Your task to perform on an android device: Go to ESPN.com Image 0: 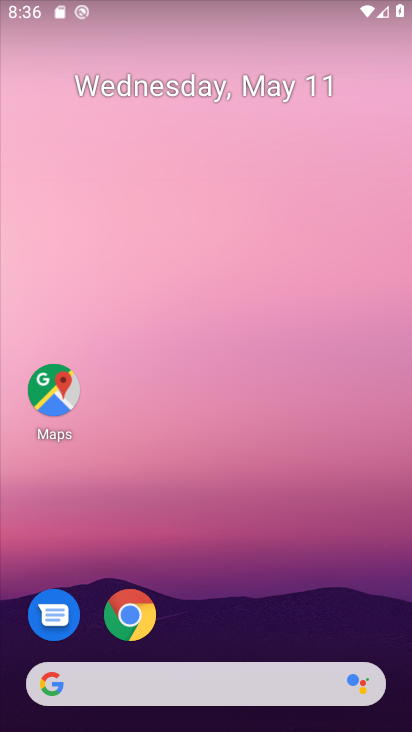
Step 0: drag from (313, 584) to (347, 6)
Your task to perform on an android device: Go to ESPN.com Image 1: 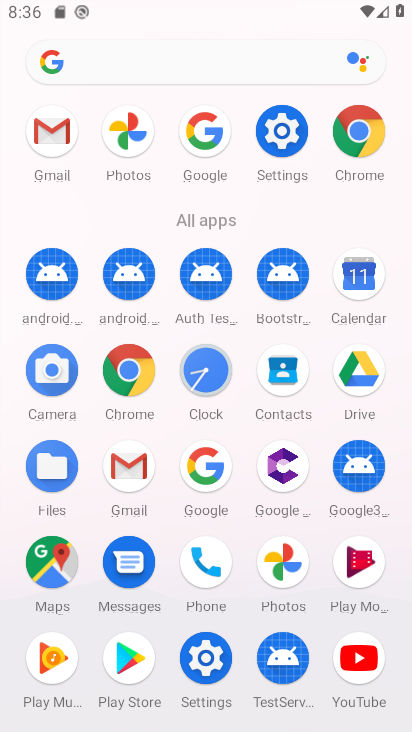
Step 1: click (352, 150)
Your task to perform on an android device: Go to ESPN.com Image 2: 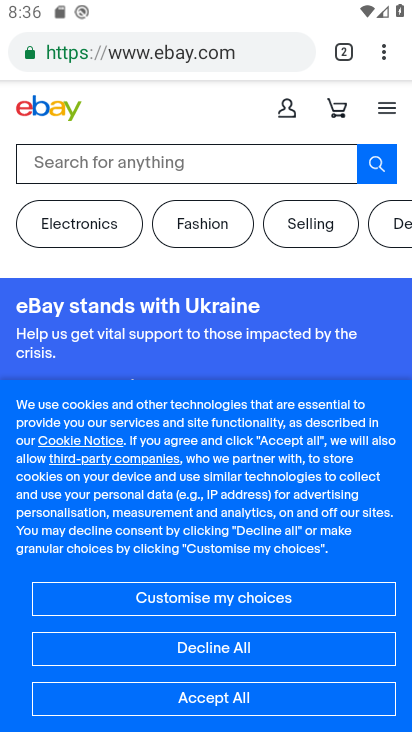
Step 2: click (229, 58)
Your task to perform on an android device: Go to ESPN.com Image 3: 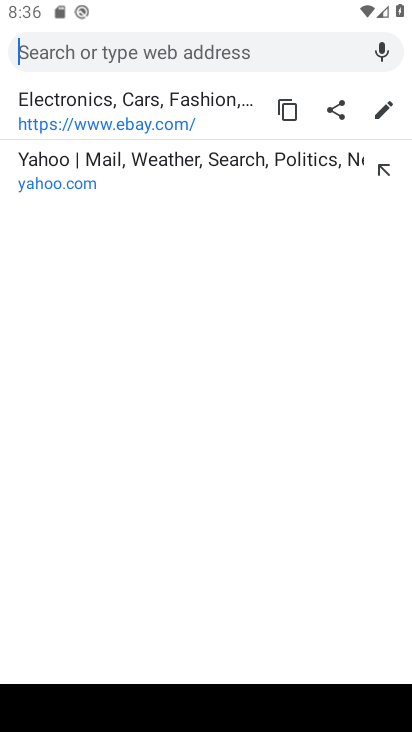
Step 3: type "espn"
Your task to perform on an android device: Go to ESPN.com Image 4: 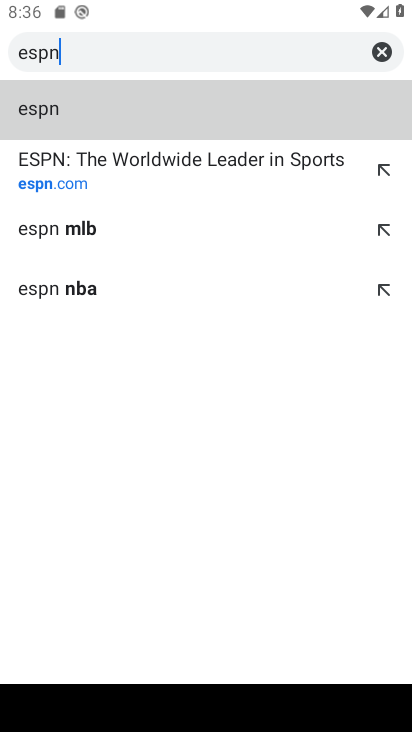
Step 4: click (108, 159)
Your task to perform on an android device: Go to ESPN.com Image 5: 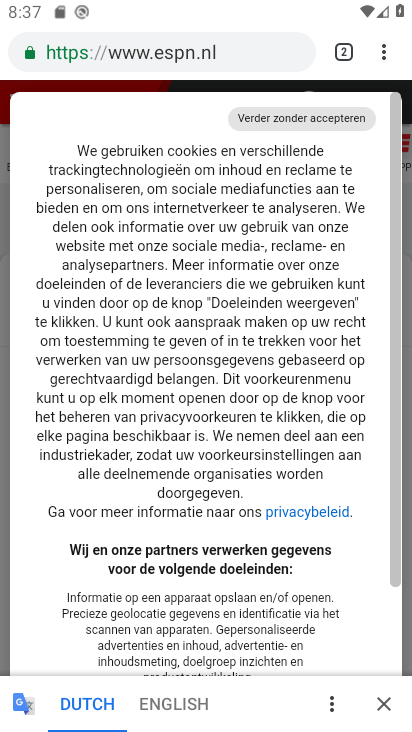
Step 5: task complete